Your task to perform on an android device: Go to Google Image 0: 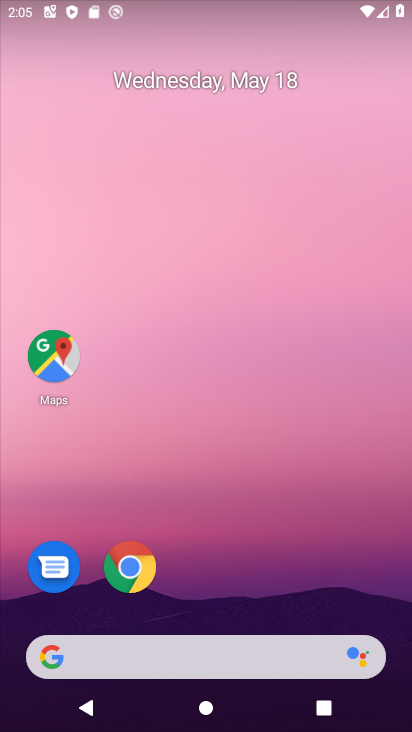
Step 0: drag from (223, 571) to (285, 262)
Your task to perform on an android device: Go to Google Image 1: 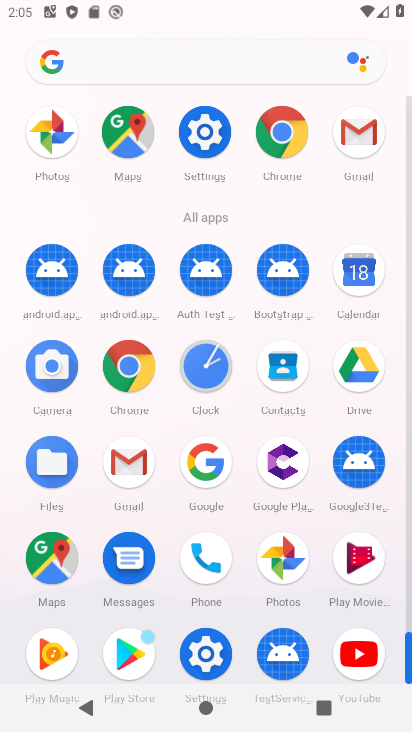
Step 1: click (192, 451)
Your task to perform on an android device: Go to Google Image 2: 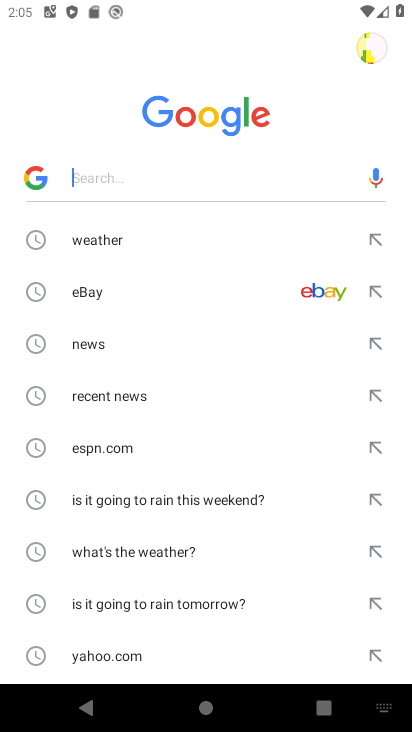
Step 2: task complete